Your task to perform on an android device: open wifi settings Image 0: 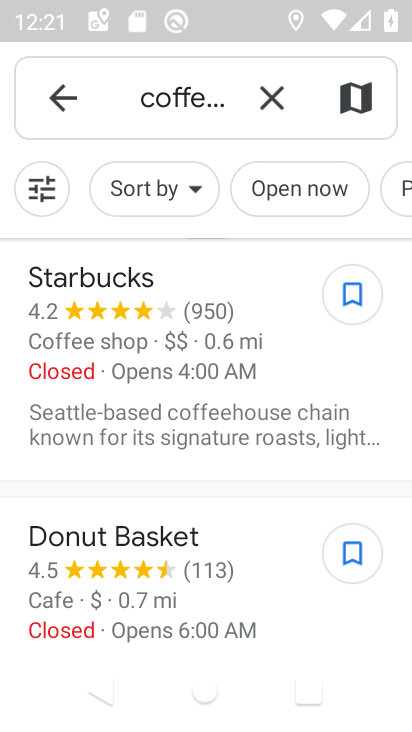
Step 0: press home button
Your task to perform on an android device: open wifi settings Image 1: 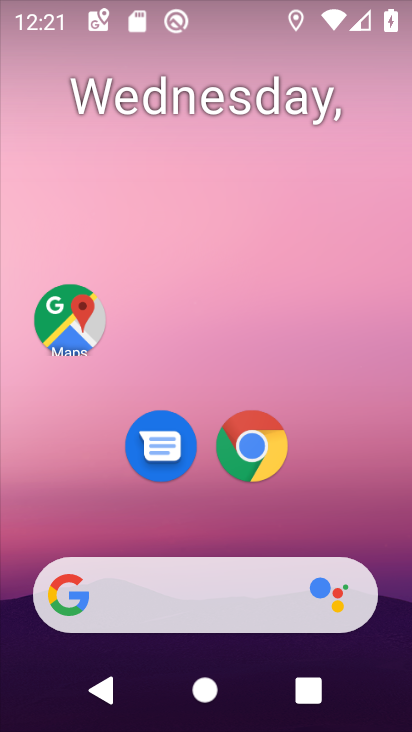
Step 1: drag from (334, 514) to (390, 29)
Your task to perform on an android device: open wifi settings Image 2: 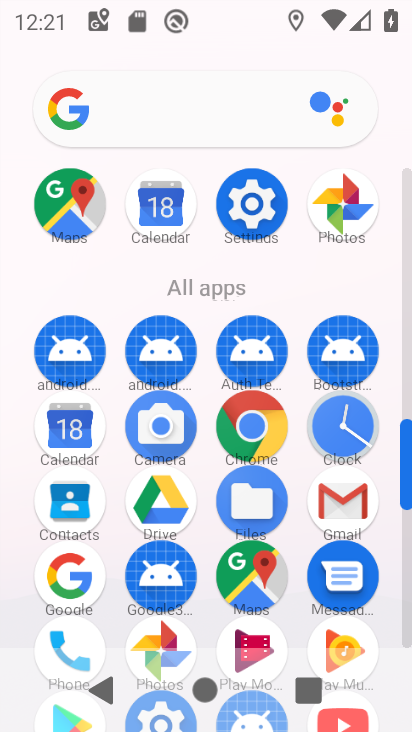
Step 2: click (249, 206)
Your task to perform on an android device: open wifi settings Image 3: 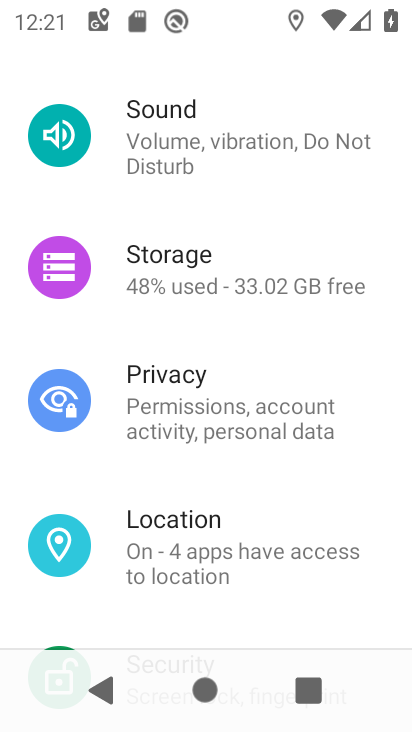
Step 3: drag from (299, 235) to (299, 549)
Your task to perform on an android device: open wifi settings Image 4: 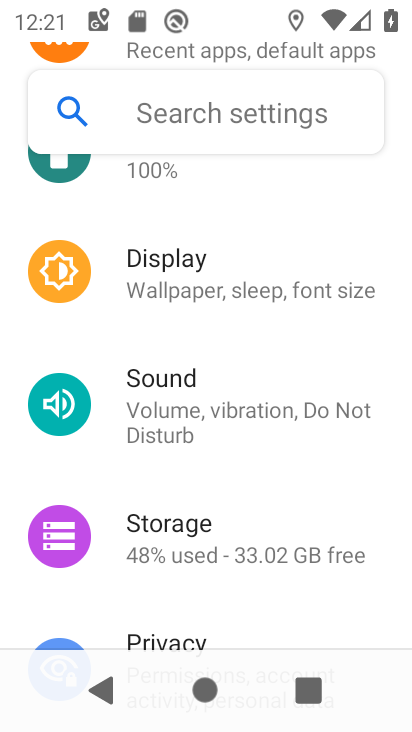
Step 4: drag from (331, 230) to (314, 542)
Your task to perform on an android device: open wifi settings Image 5: 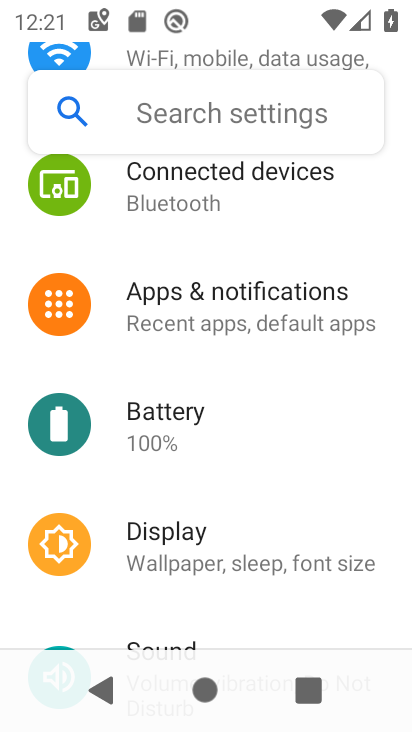
Step 5: drag from (260, 232) to (281, 524)
Your task to perform on an android device: open wifi settings Image 6: 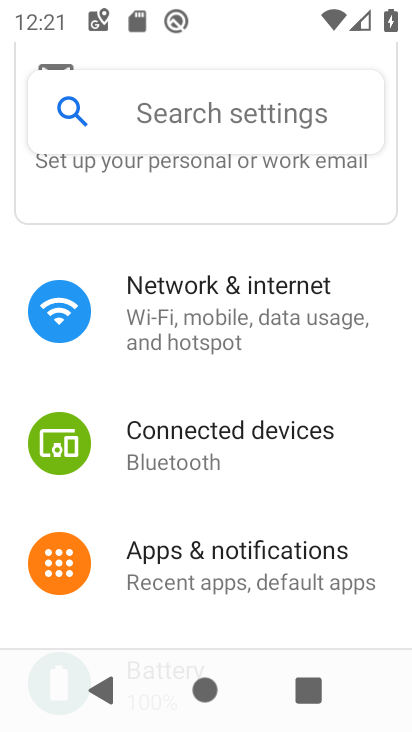
Step 6: click (201, 321)
Your task to perform on an android device: open wifi settings Image 7: 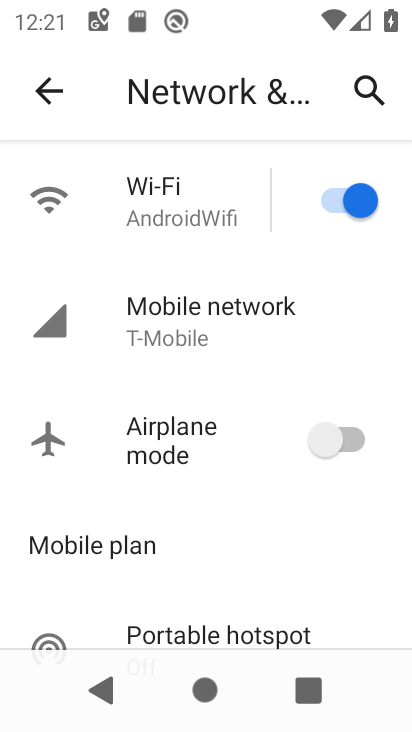
Step 7: click (126, 195)
Your task to perform on an android device: open wifi settings Image 8: 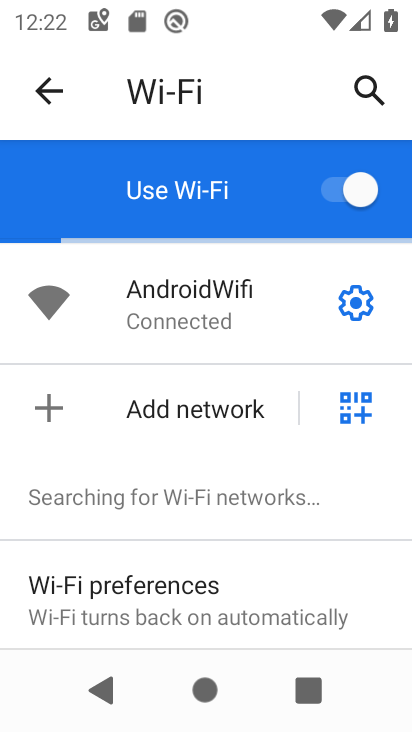
Step 8: task complete